Your task to perform on an android device: delete a single message in the gmail app Image 0: 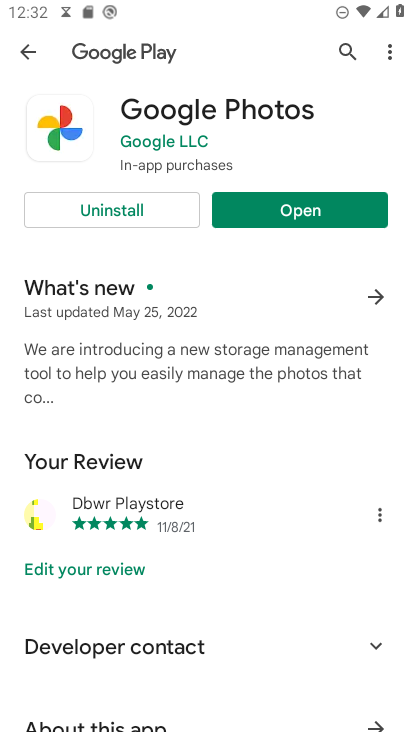
Step 0: press home button
Your task to perform on an android device: delete a single message in the gmail app Image 1: 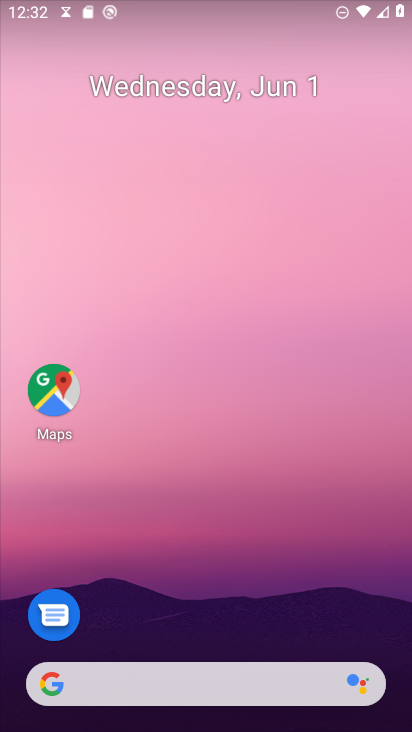
Step 1: drag from (206, 634) to (200, 67)
Your task to perform on an android device: delete a single message in the gmail app Image 2: 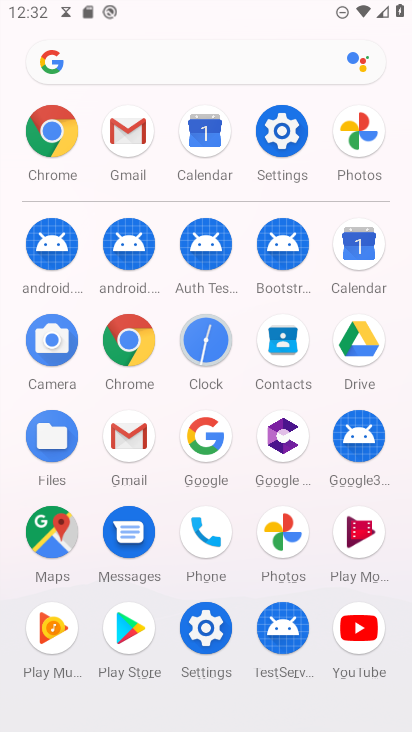
Step 2: click (130, 440)
Your task to perform on an android device: delete a single message in the gmail app Image 3: 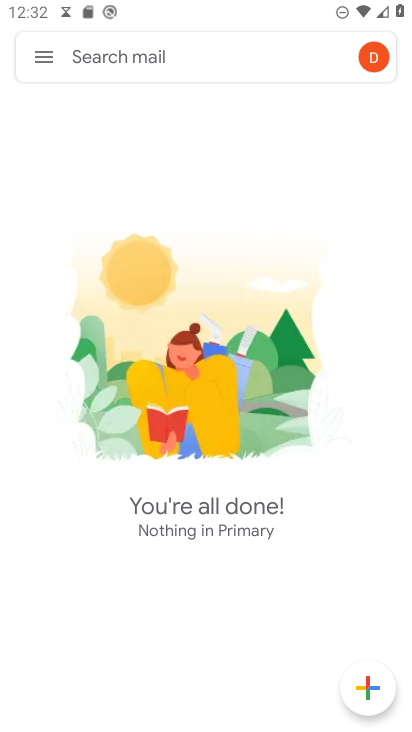
Step 3: click (44, 58)
Your task to perform on an android device: delete a single message in the gmail app Image 4: 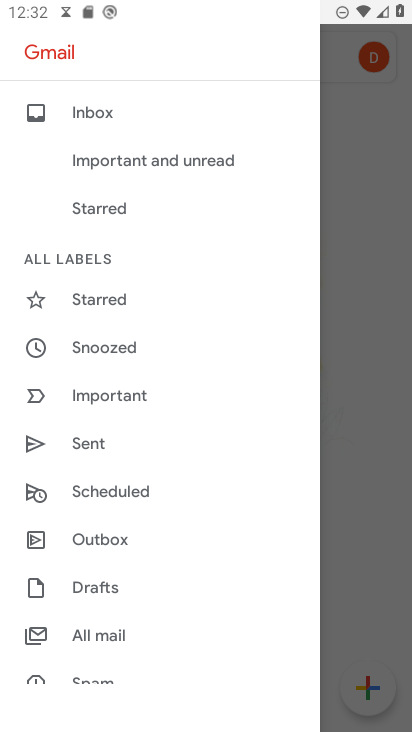
Step 4: click (107, 119)
Your task to perform on an android device: delete a single message in the gmail app Image 5: 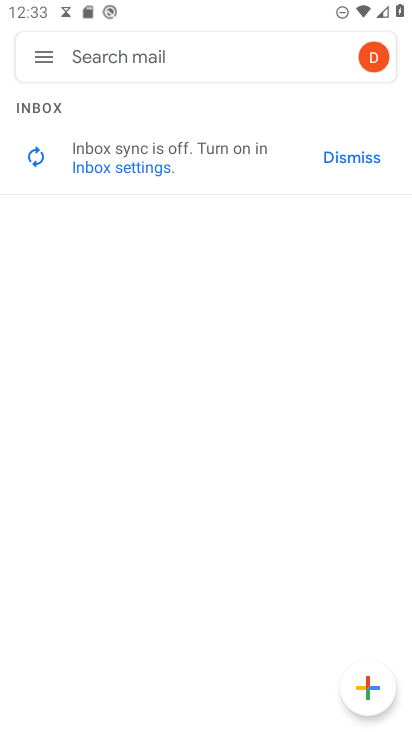
Step 5: click (347, 153)
Your task to perform on an android device: delete a single message in the gmail app Image 6: 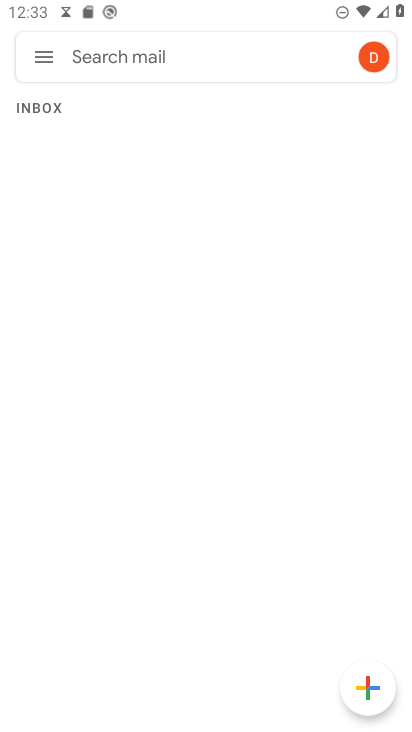
Step 6: task complete